Your task to perform on an android device: clear all cookies in the chrome app Image 0: 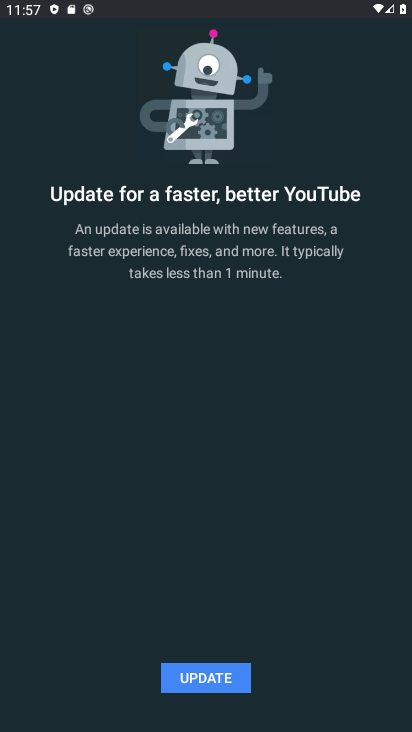
Step 0: press home button
Your task to perform on an android device: clear all cookies in the chrome app Image 1: 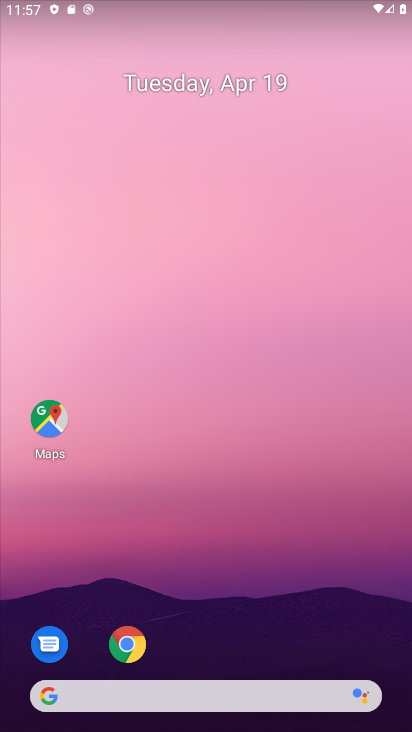
Step 1: click (139, 646)
Your task to perform on an android device: clear all cookies in the chrome app Image 2: 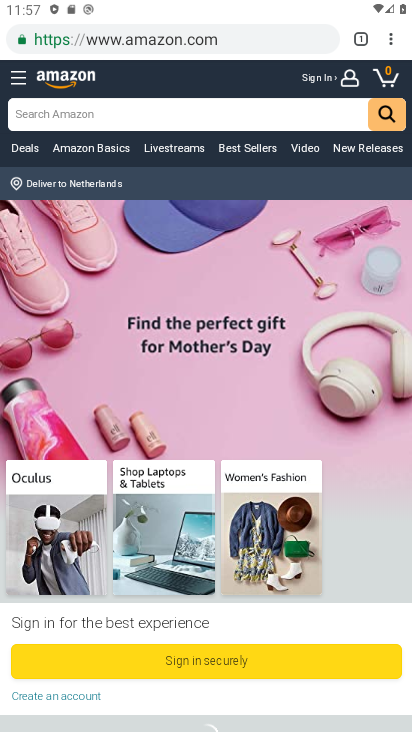
Step 2: click (388, 36)
Your task to perform on an android device: clear all cookies in the chrome app Image 3: 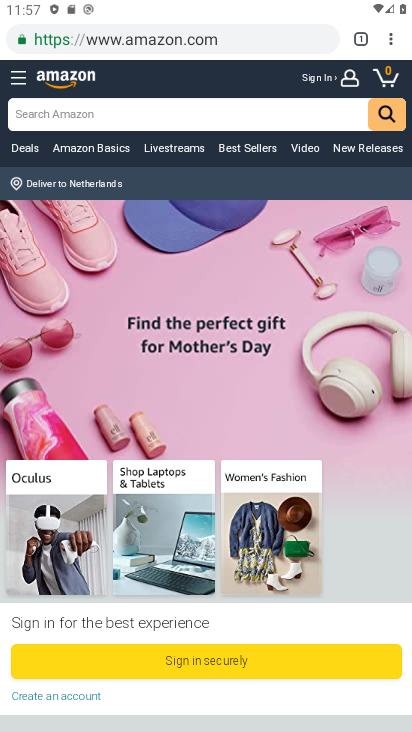
Step 3: click (388, 36)
Your task to perform on an android device: clear all cookies in the chrome app Image 4: 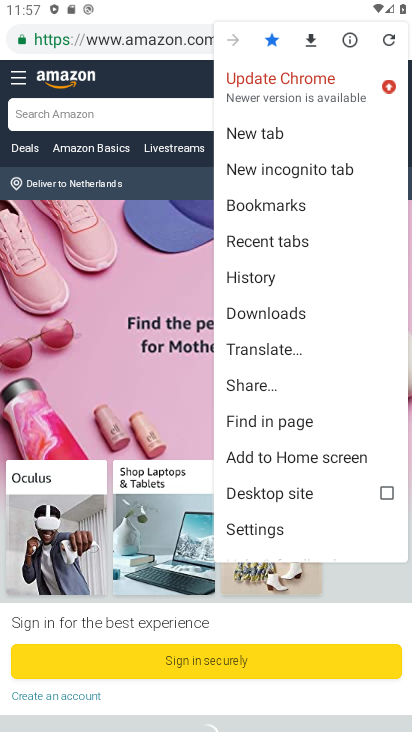
Step 4: click (274, 522)
Your task to perform on an android device: clear all cookies in the chrome app Image 5: 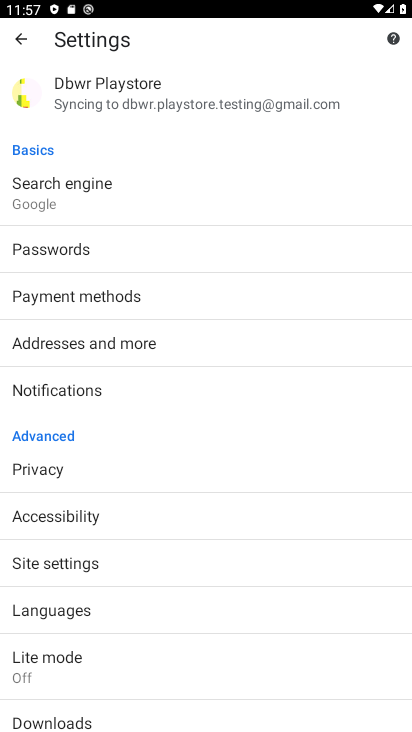
Step 5: click (107, 459)
Your task to perform on an android device: clear all cookies in the chrome app Image 6: 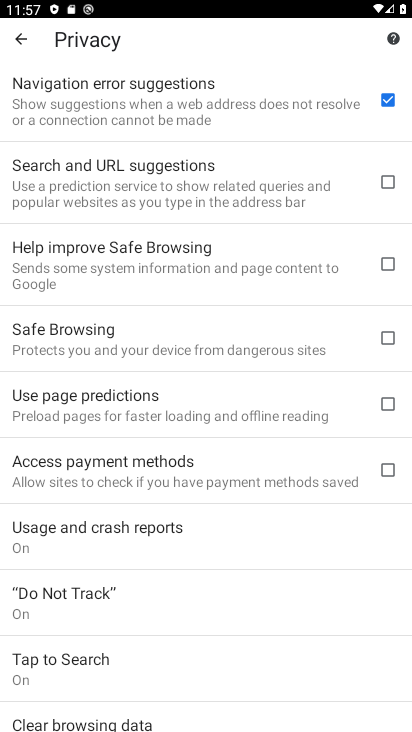
Step 6: click (122, 721)
Your task to perform on an android device: clear all cookies in the chrome app Image 7: 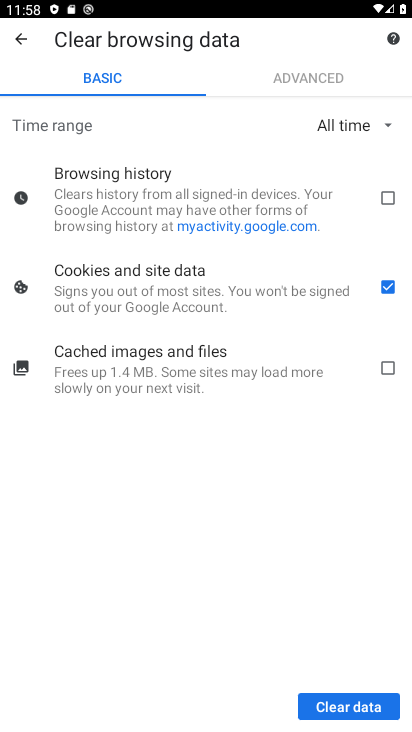
Step 7: click (330, 697)
Your task to perform on an android device: clear all cookies in the chrome app Image 8: 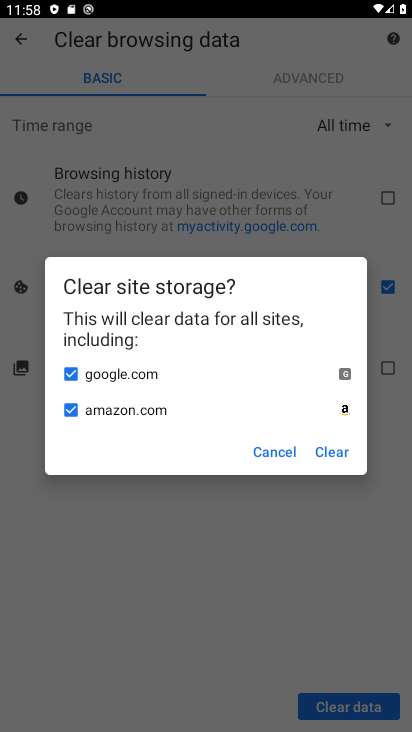
Step 8: click (335, 448)
Your task to perform on an android device: clear all cookies in the chrome app Image 9: 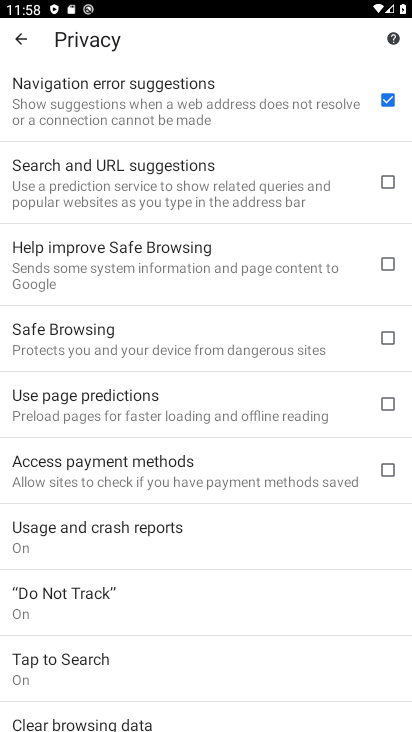
Step 9: task complete